Your task to perform on an android device: change the upload size in google photos Image 0: 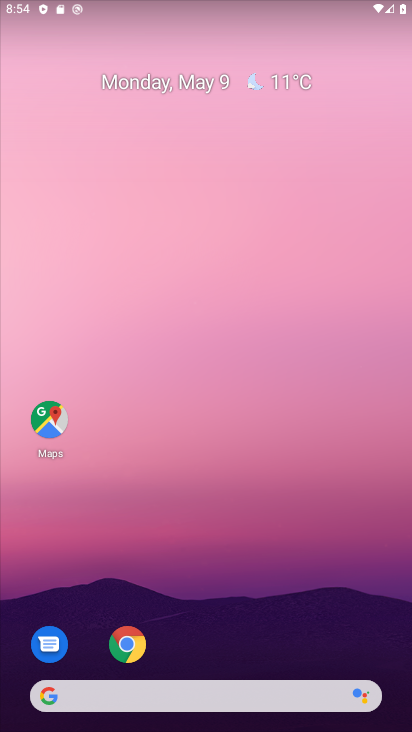
Step 0: drag from (223, 674) to (134, 0)
Your task to perform on an android device: change the upload size in google photos Image 1: 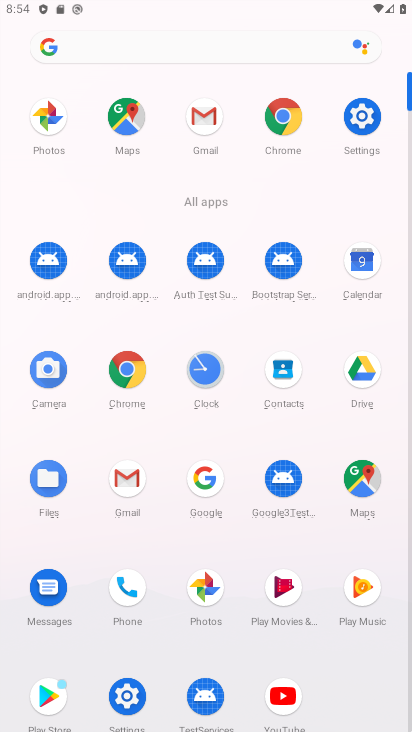
Step 1: click (197, 579)
Your task to perform on an android device: change the upload size in google photos Image 2: 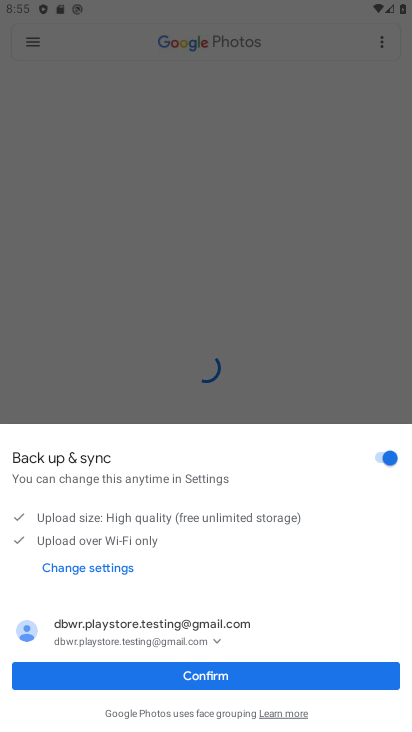
Step 2: click (88, 574)
Your task to perform on an android device: change the upload size in google photos Image 3: 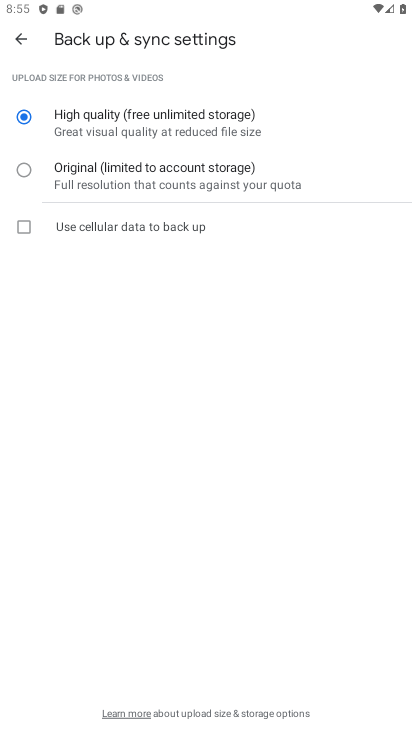
Step 3: click (30, 183)
Your task to perform on an android device: change the upload size in google photos Image 4: 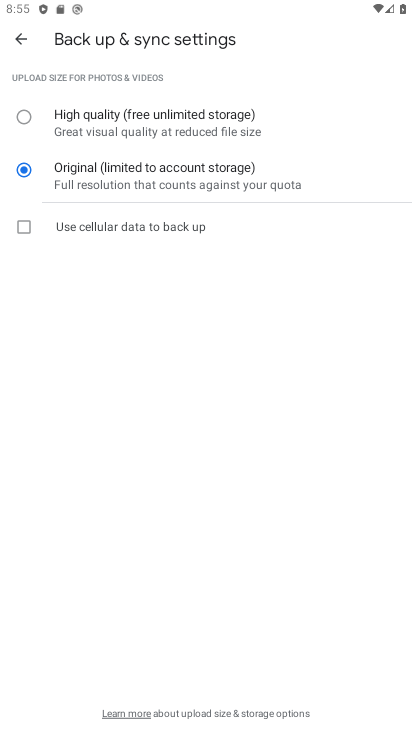
Step 4: click (27, 25)
Your task to perform on an android device: change the upload size in google photos Image 5: 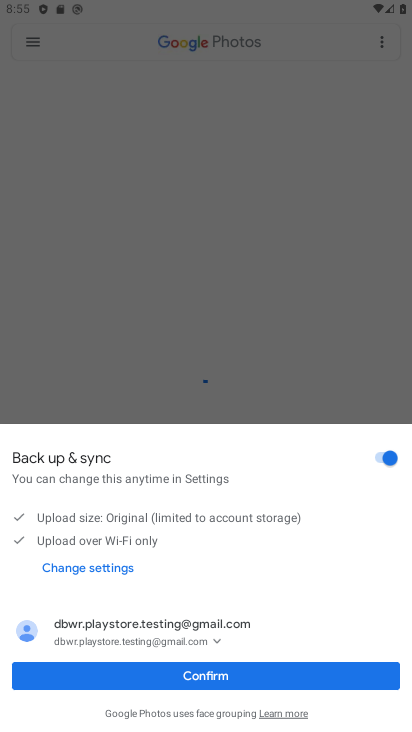
Step 5: click (168, 665)
Your task to perform on an android device: change the upload size in google photos Image 6: 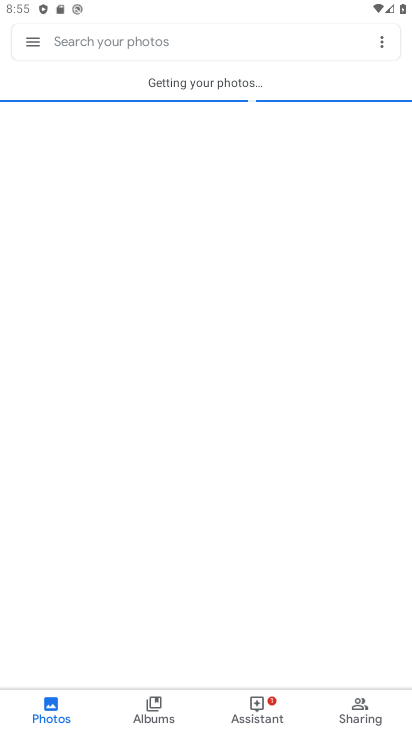
Step 6: task complete